Your task to perform on an android device: Open Chrome and go to the settings page Image 0: 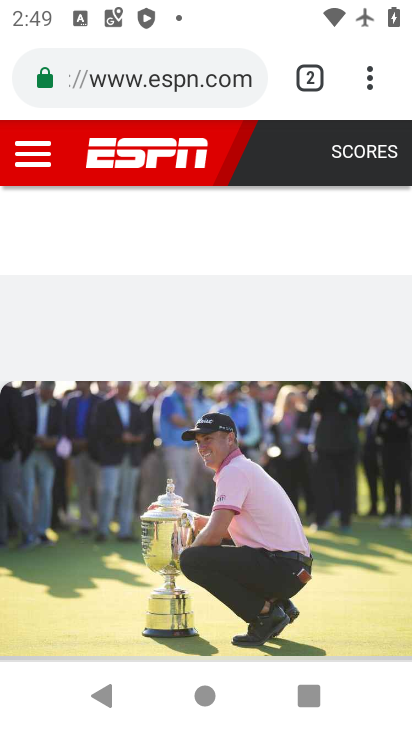
Step 0: press home button
Your task to perform on an android device: Open Chrome and go to the settings page Image 1: 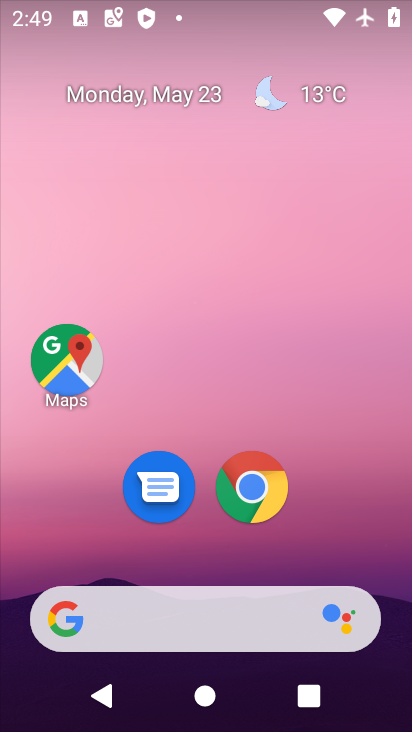
Step 1: click (256, 491)
Your task to perform on an android device: Open Chrome and go to the settings page Image 2: 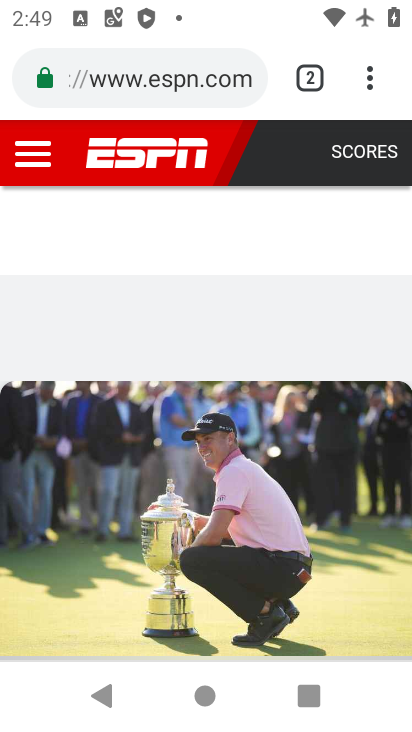
Step 2: click (367, 88)
Your task to perform on an android device: Open Chrome and go to the settings page Image 3: 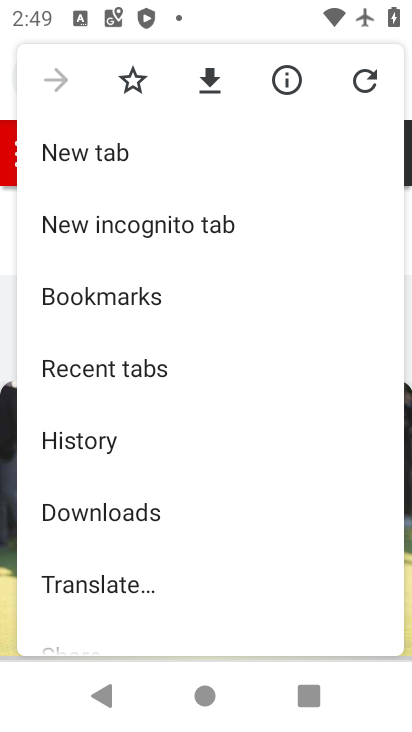
Step 3: drag from (245, 540) to (243, 361)
Your task to perform on an android device: Open Chrome and go to the settings page Image 4: 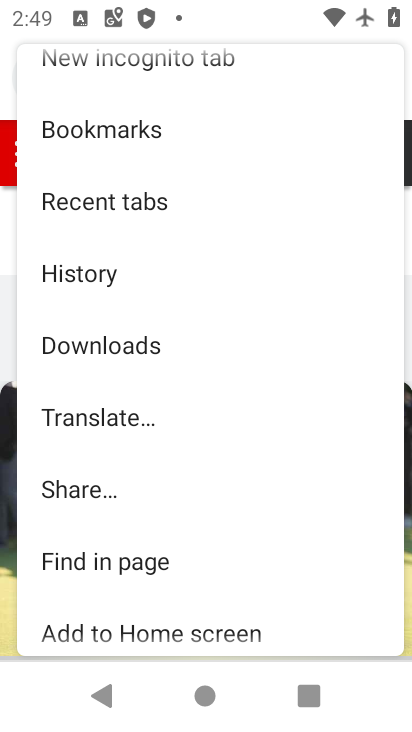
Step 4: drag from (230, 568) to (251, 152)
Your task to perform on an android device: Open Chrome and go to the settings page Image 5: 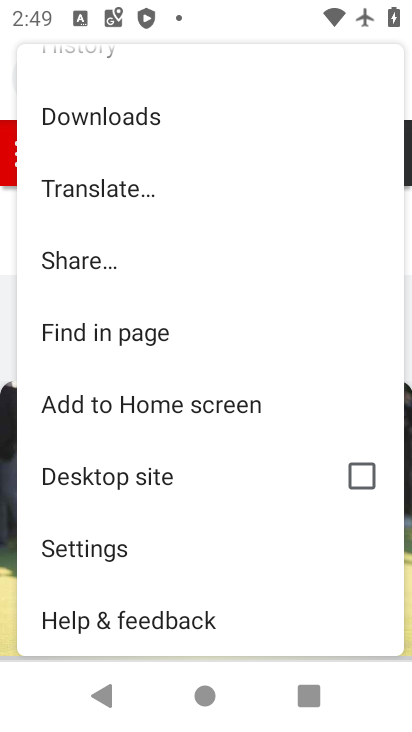
Step 5: click (112, 557)
Your task to perform on an android device: Open Chrome and go to the settings page Image 6: 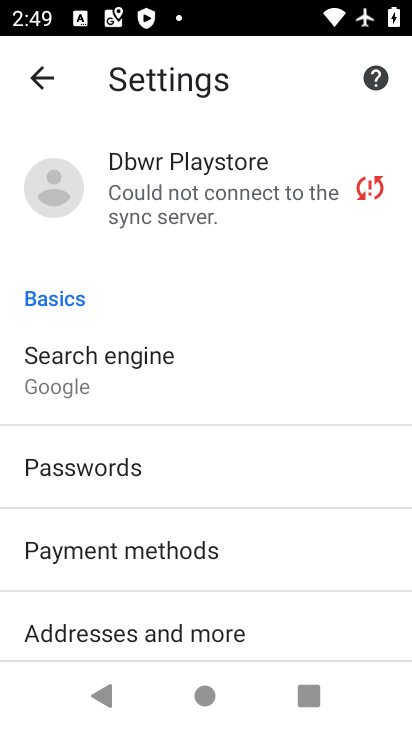
Step 6: task complete